Your task to perform on an android device: Open Maps and search for coffee Image 0: 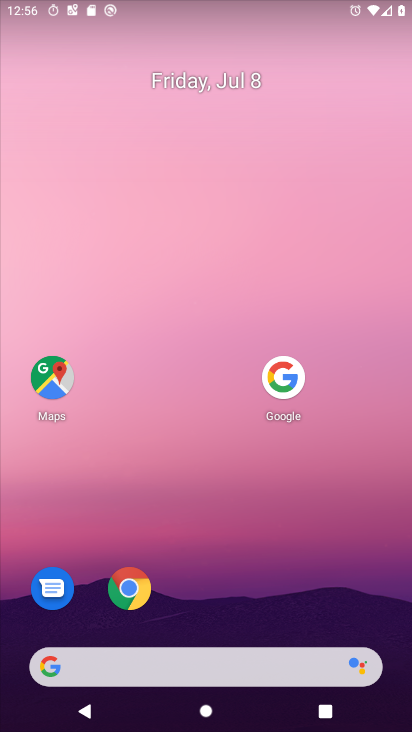
Step 0: click (49, 375)
Your task to perform on an android device: Open Maps and search for coffee Image 1: 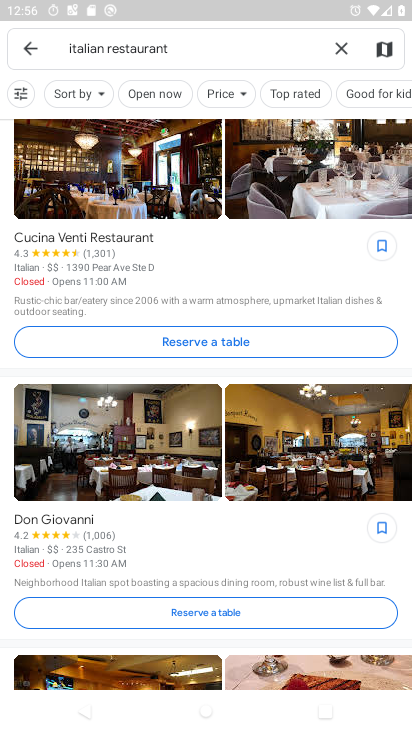
Step 1: click (338, 41)
Your task to perform on an android device: Open Maps and search for coffee Image 2: 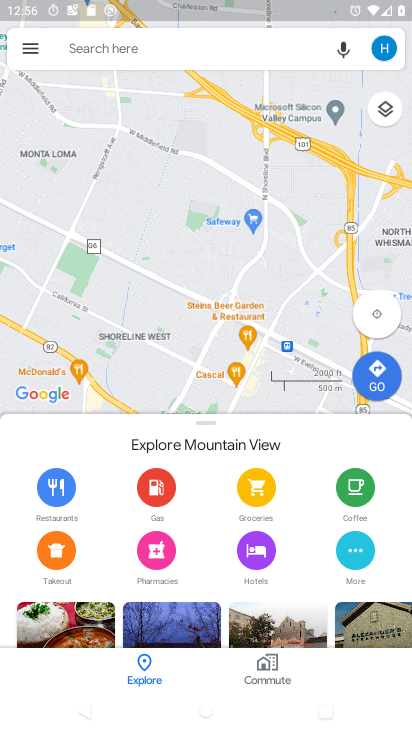
Step 2: click (199, 44)
Your task to perform on an android device: Open Maps and search for coffee Image 3: 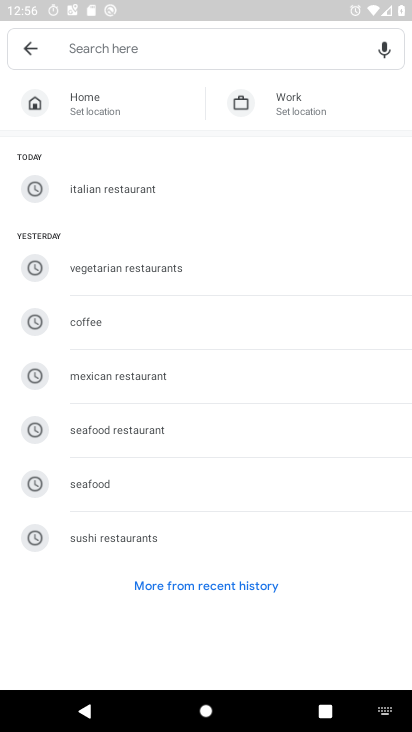
Step 3: click (95, 321)
Your task to perform on an android device: Open Maps and search for coffee Image 4: 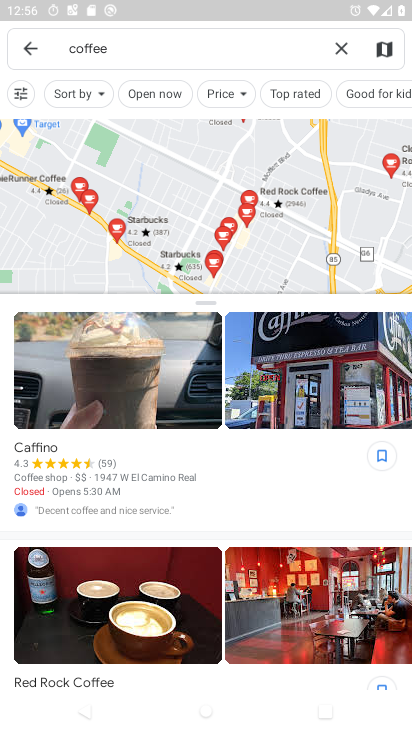
Step 4: task complete